Your task to perform on an android device: Open calendar and show me the second week of next month Image 0: 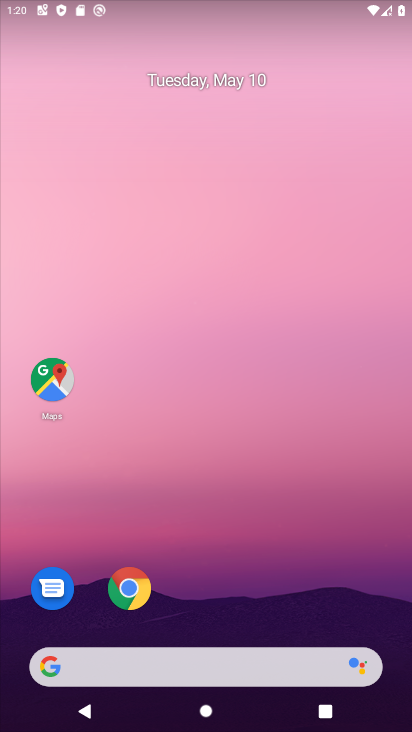
Step 0: drag from (267, 431) to (294, 236)
Your task to perform on an android device: Open calendar and show me the second week of next month Image 1: 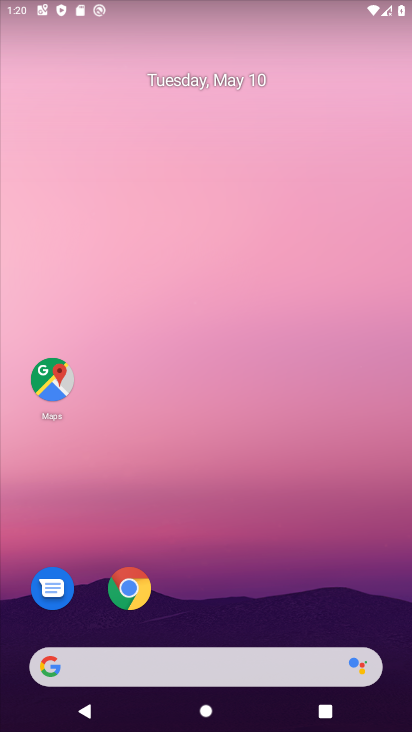
Step 1: drag from (240, 454) to (271, 277)
Your task to perform on an android device: Open calendar and show me the second week of next month Image 2: 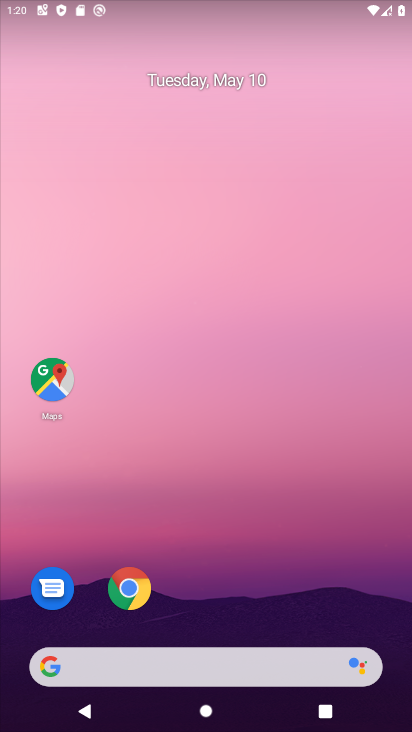
Step 2: drag from (223, 587) to (231, 256)
Your task to perform on an android device: Open calendar and show me the second week of next month Image 3: 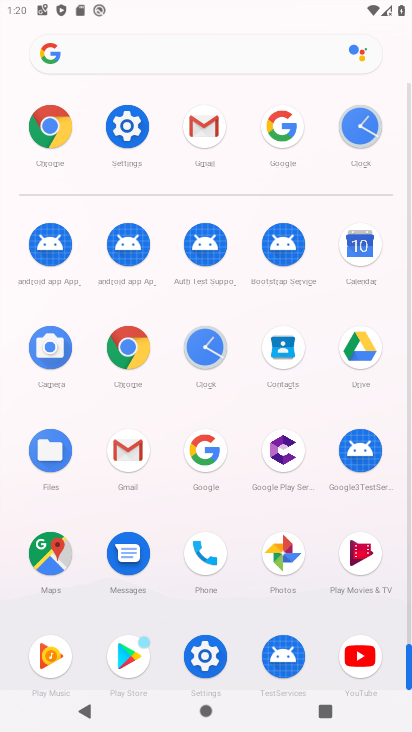
Step 3: click (355, 242)
Your task to perform on an android device: Open calendar and show me the second week of next month Image 4: 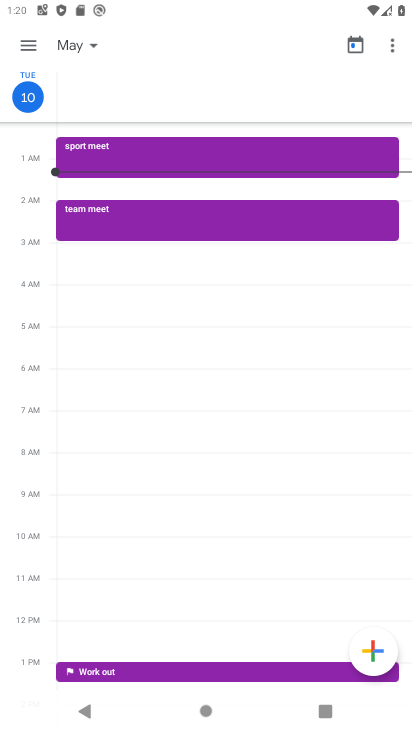
Step 4: click (26, 47)
Your task to perform on an android device: Open calendar and show me the second week of next month Image 5: 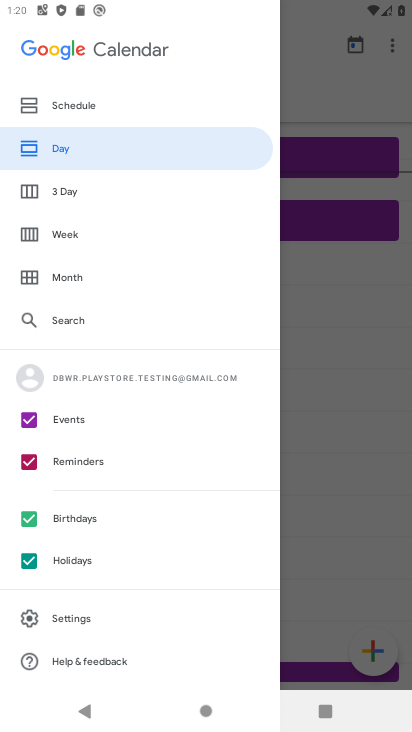
Step 5: click (85, 277)
Your task to perform on an android device: Open calendar and show me the second week of next month Image 6: 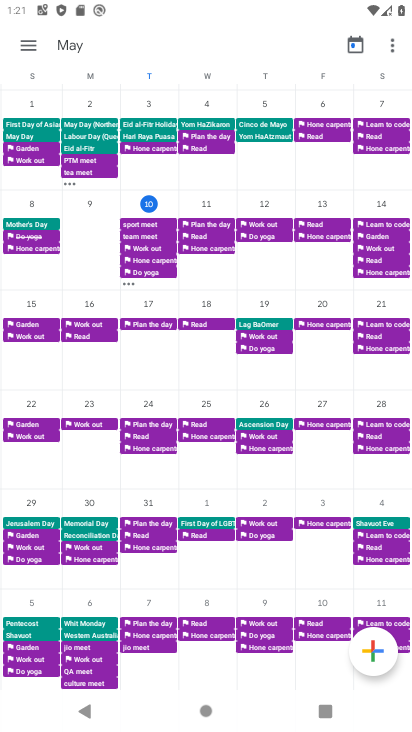
Step 6: task complete